Your task to perform on an android device: Go to calendar. Show me events next week Image 0: 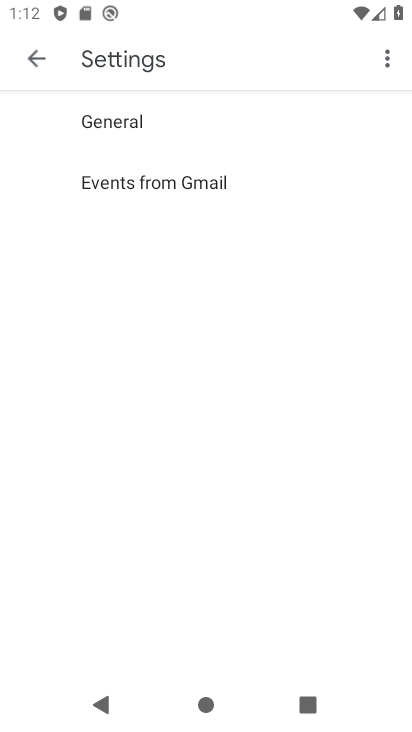
Step 0: press home button
Your task to perform on an android device: Go to calendar. Show me events next week Image 1: 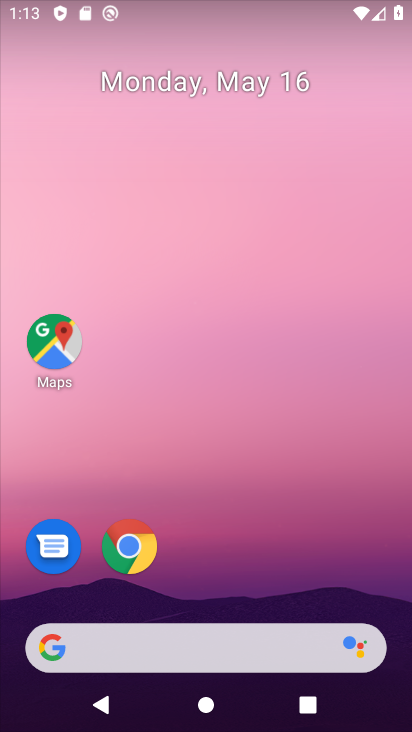
Step 1: drag from (167, 452) to (230, 211)
Your task to perform on an android device: Go to calendar. Show me events next week Image 2: 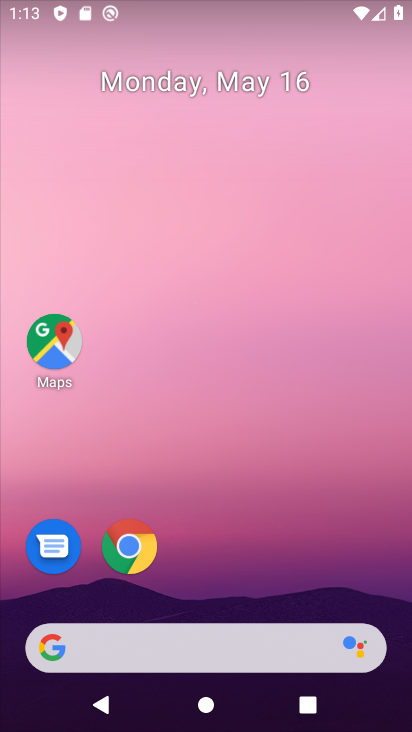
Step 2: drag from (192, 590) to (246, 153)
Your task to perform on an android device: Go to calendar. Show me events next week Image 3: 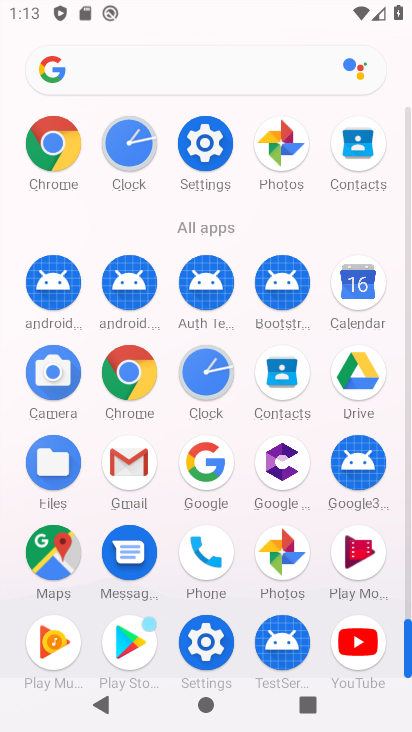
Step 3: click (352, 285)
Your task to perform on an android device: Go to calendar. Show me events next week Image 4: 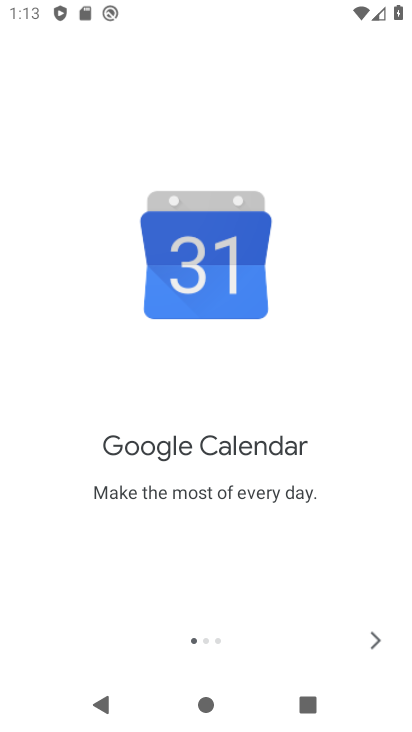
Step 4: click (376, 644)
Your task to perform on an android device: Go to calendar. Show me events next week Image 5: 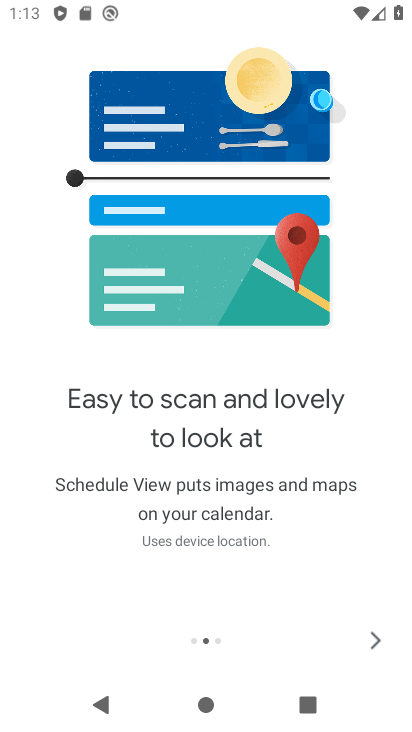
Step 5: click (376, 643)
Your task to perform on an android device: Go to calendar. Show me events next week Image 6: 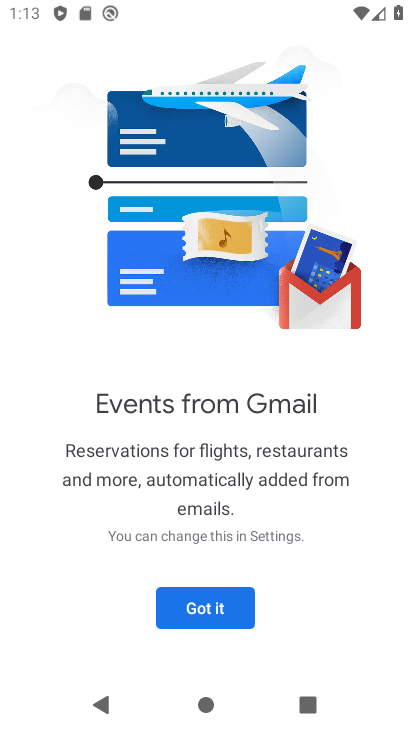
Step 6: click (377, 642)
Your task to perform on an android device: Go to calendar. Show me events next week Image 7: 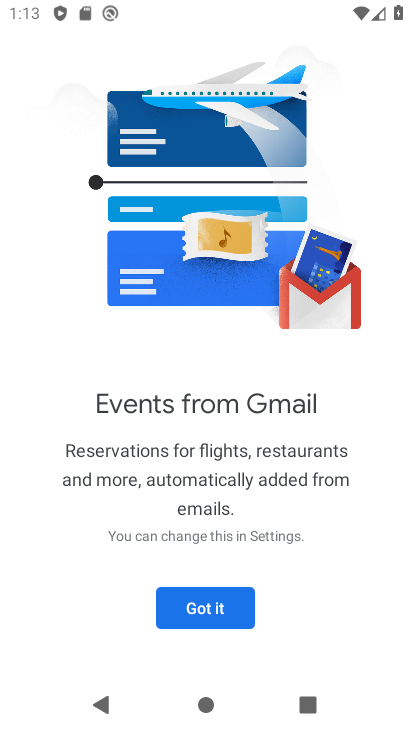
Step 7: click (216, 604)
Your task to perform on an android device: Go to calendar. Show me events next week Image 8: 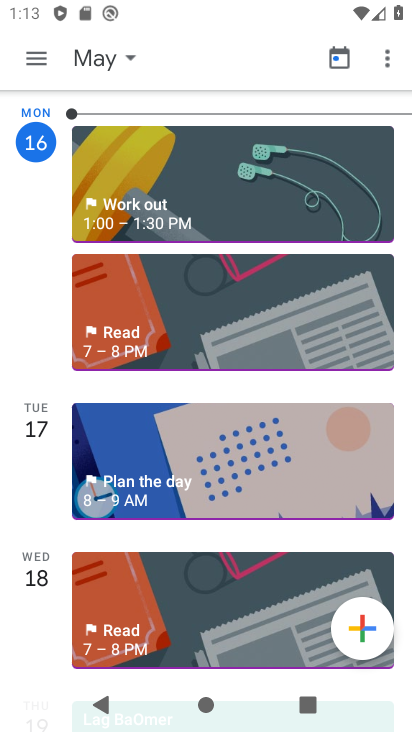
Step 8: click (115, 52)
Your task to perform on an android device: Go to calendar. Show me events next week Image 9: 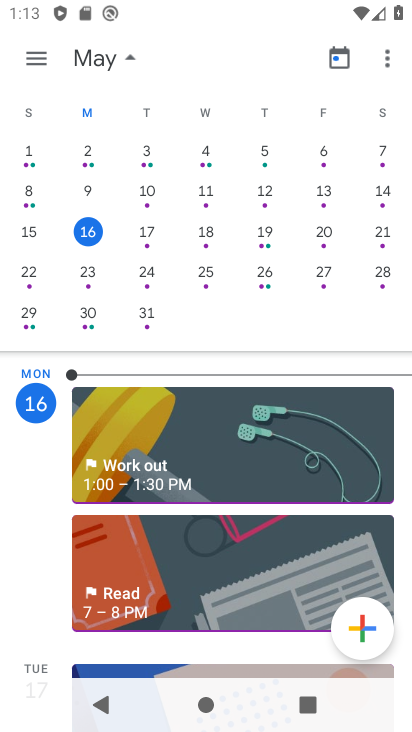
Step 9: click (85, 270)
Your task to perform on an android device: Go to calendar. Show me events next week Image 10: 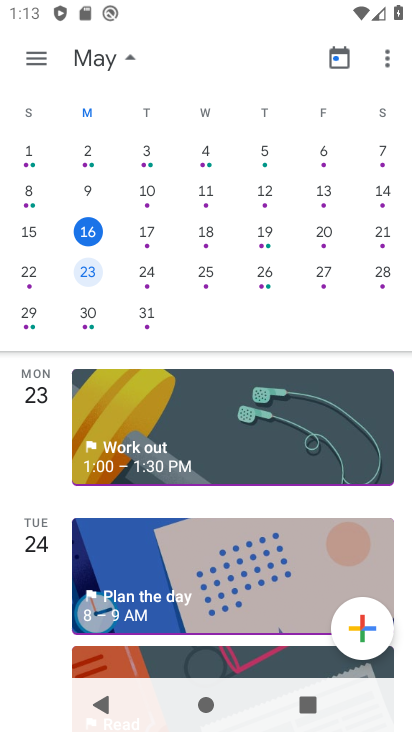
Step 10: click (148, 271)
Your task to perform on an android device: Go to calendar. Show me events next week Image 11: 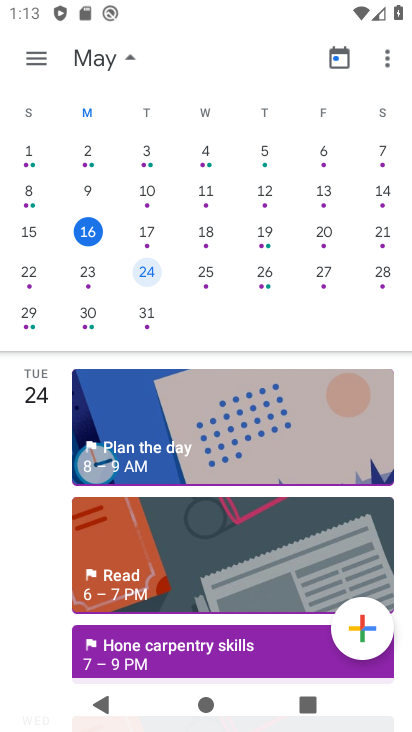
Step 11: click (209, 274)
Your task to perform on an android device: Go to calendar. Show me events next week Image 12: 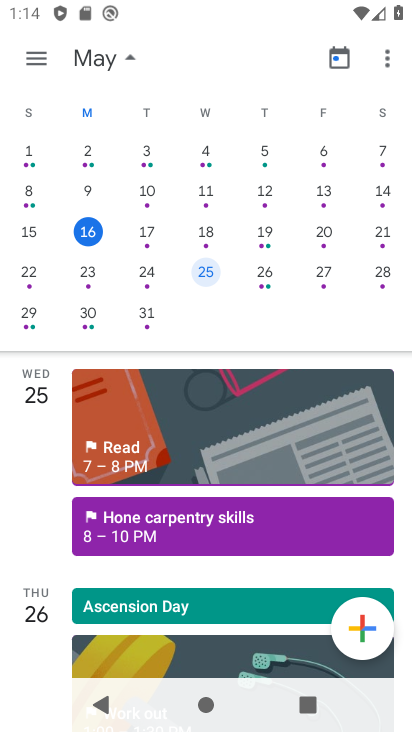
Step 12: click (274, 273)
Your task to perform on an android device: Go to calendar. Show me events next week Image 13: 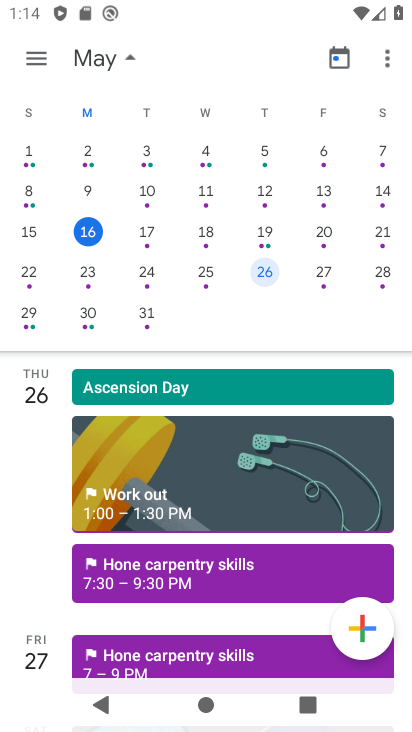
Step 13: click (325, 280)
Your task to perform on an android device: Go to calendar. Show me events next week Image 14: 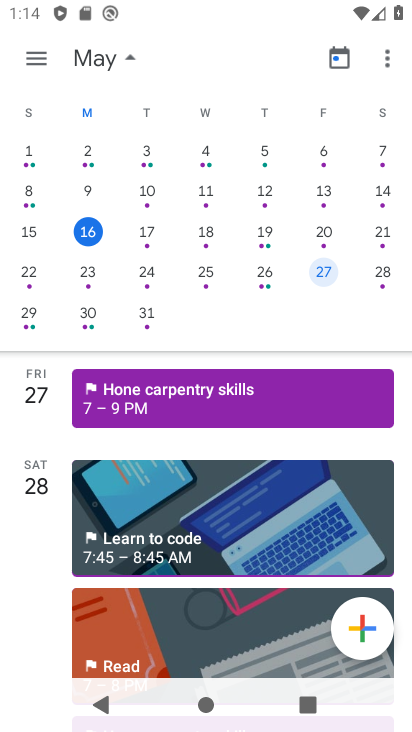
Step 14: click (408, 272)
Your task to perform on an android device: Go to calendar. Show me events next week Image 15: 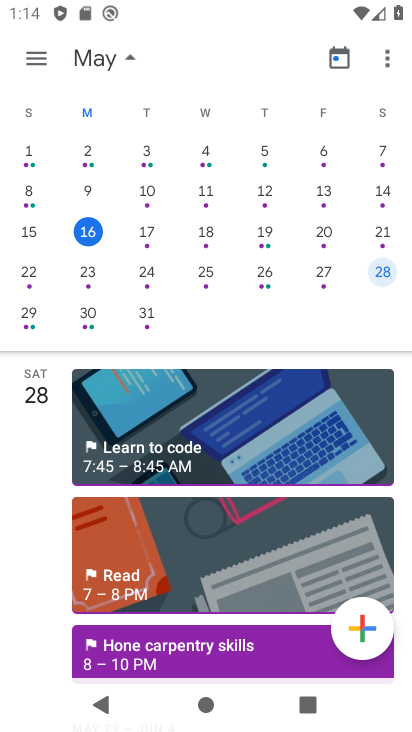
Step 15: task complete